Your task to perform on an android device: find snoozed emails in the gmail app Image 0: 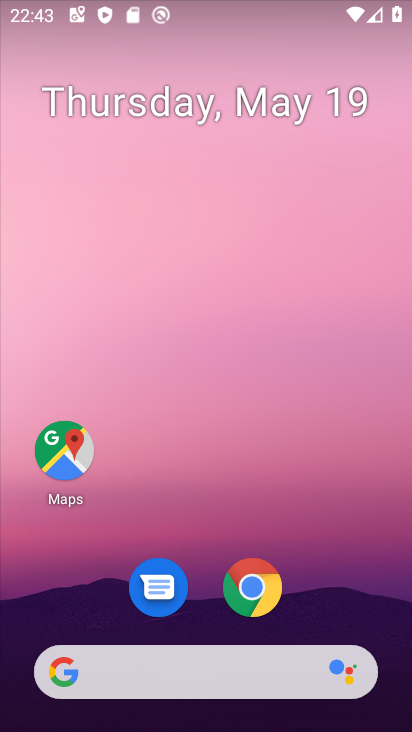
Step 0: drag from (233, 693) to (286, 195)
Your task to perform on an android device: find snoozed emails in the gmail app Image 1: 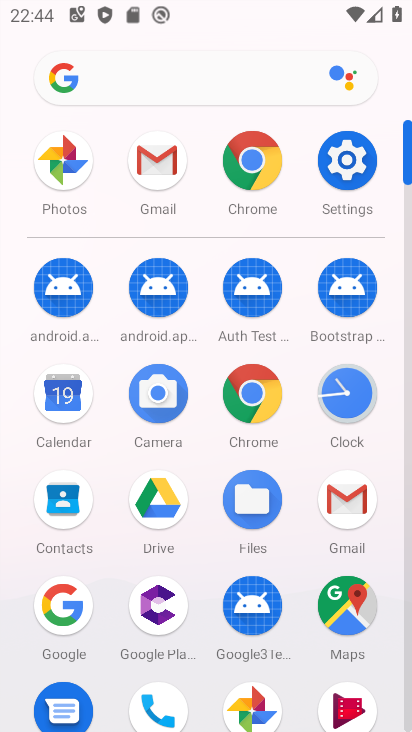
Step 1: click (179, 185)
Your task to perform on an android device: find snoozed emails in the gmail app Image 2: 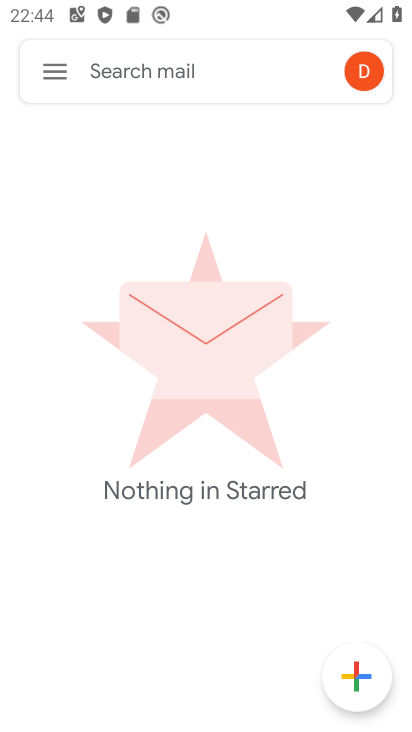
Step 2: click (33, 86)
Your task to perform on an android device: find snoozed emails in the gmail app Image 3: 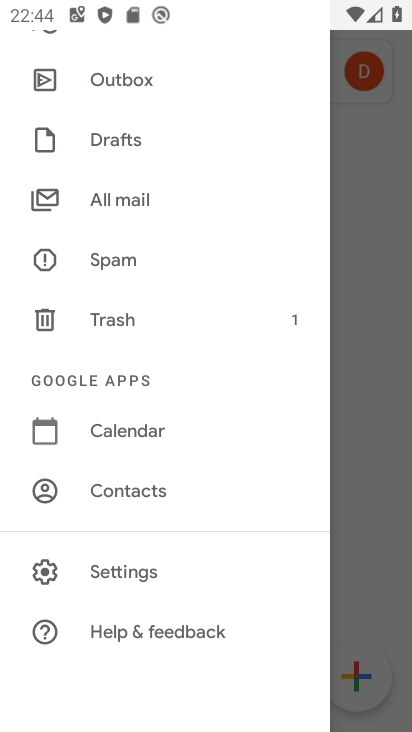
Step 3: drag from (110, 149) to (192, 366)
Your task to perform on an android device: find snoozed emails in the gmail app Image 4: 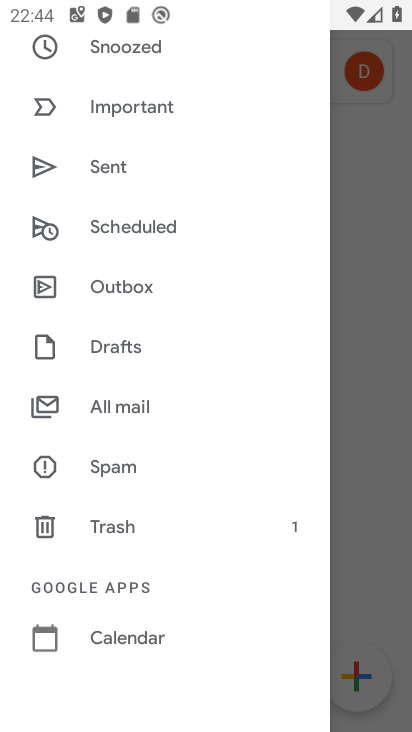
Step 4: drag from (83, 115) to (154, 305)
Your task to perform on an android device: find snoozed emails in the gmail app Image 5: 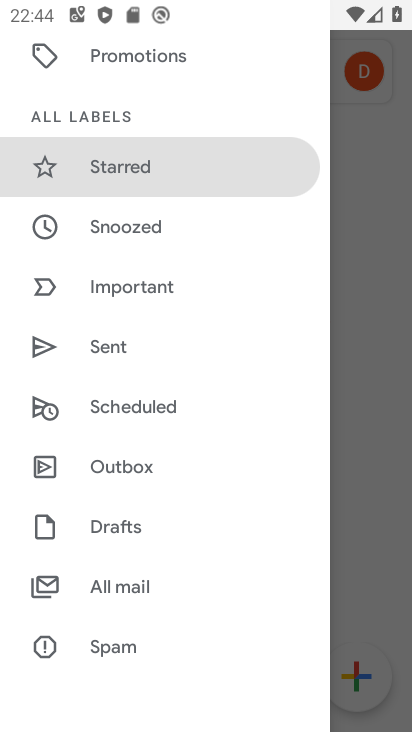
Step 5: click (129, 236)
Your task to perform on an android device: find snoozed emails in the gmail app Image 6: 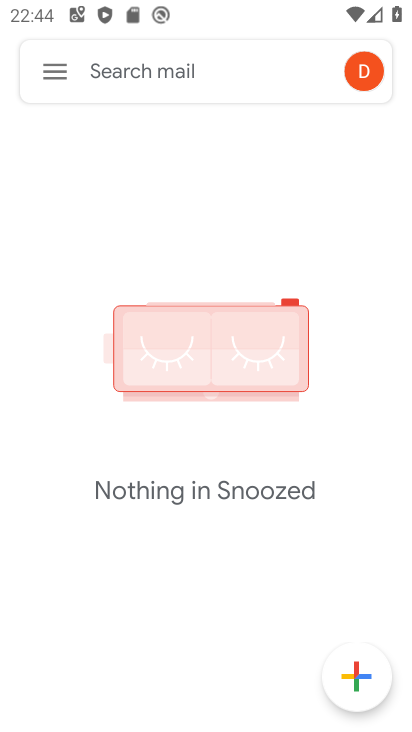
Step 6: task complete